Your task to perform on an android device: toggle airplane mode Image 0: 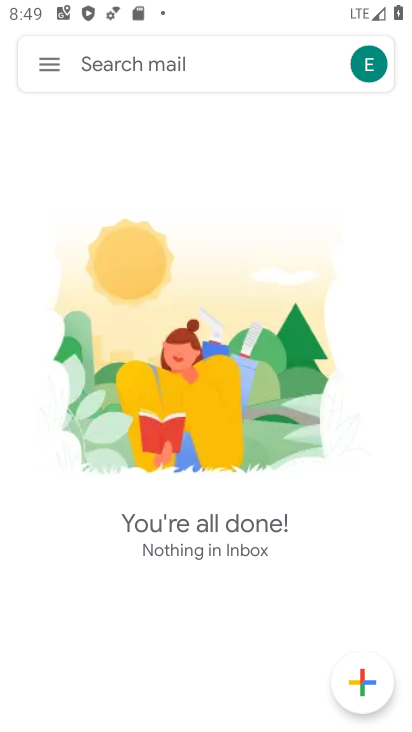
Step 0: press home button
Your task to perform on an android device: toggle airplane mode Image 1: 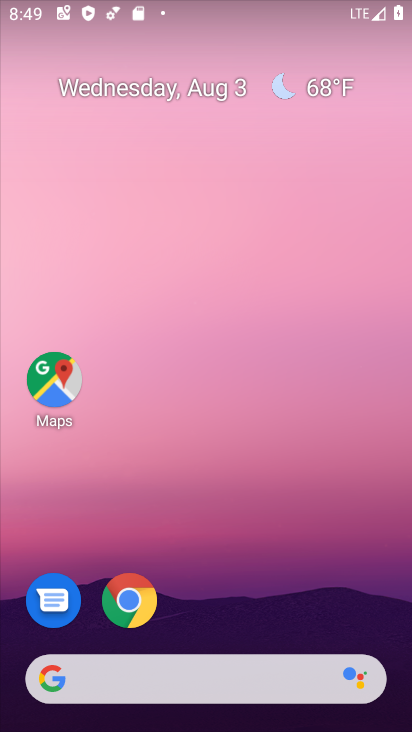
Step 1: drag from (209, 624) to (228, 116)
Your task to perform on an android device: toggle airplane mode Image 2: 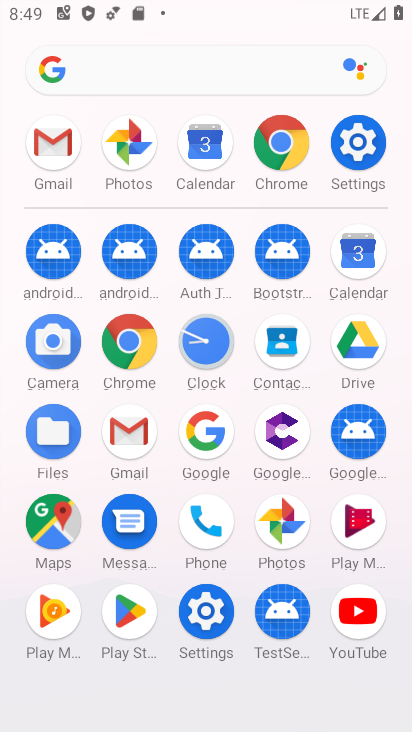
Step 2: click (365, 147)
Your task to perform on an android device: toggle airplane mode Image 3: 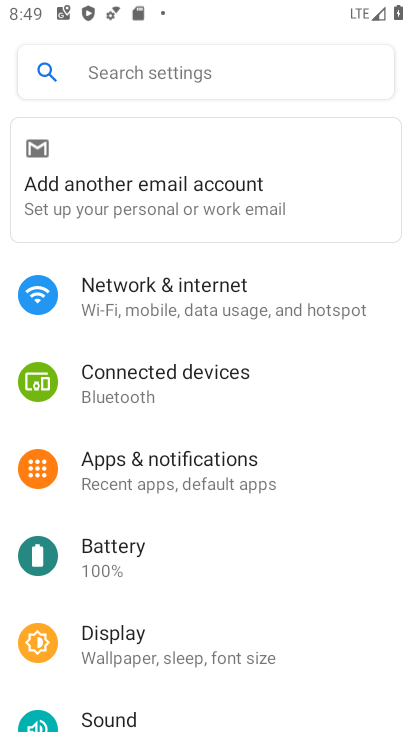
Step 3: click (188, 309)
Your task to perform on an android device: toggle airplane mode Image 4: 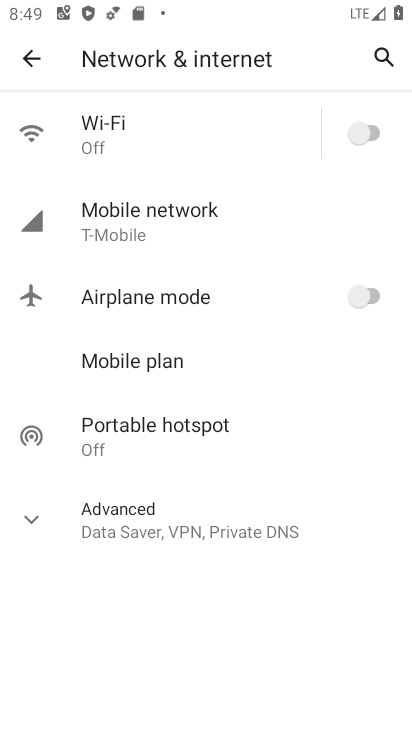
Step 4: click (320, 304)
Your task to perform on an android device: toggle airplane mode Image 5: 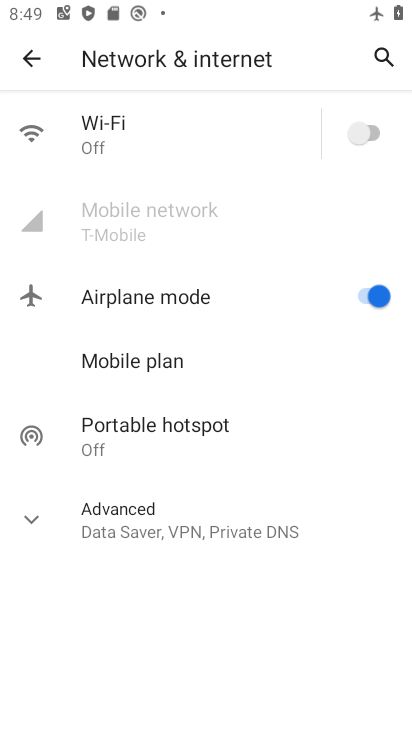
Step 5: task complete